Your task to perform on an android device: turn on priority inbox in the gmail app Image 0: 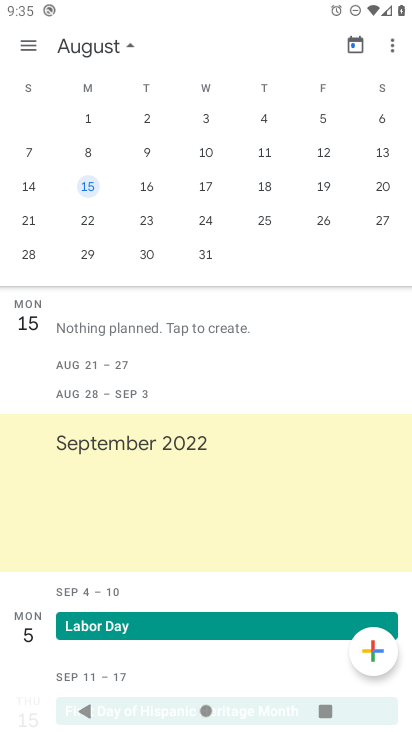
Step 0: press home button
Your task to perform on an android device: turn on priority inbox in the gmail app Image 1: 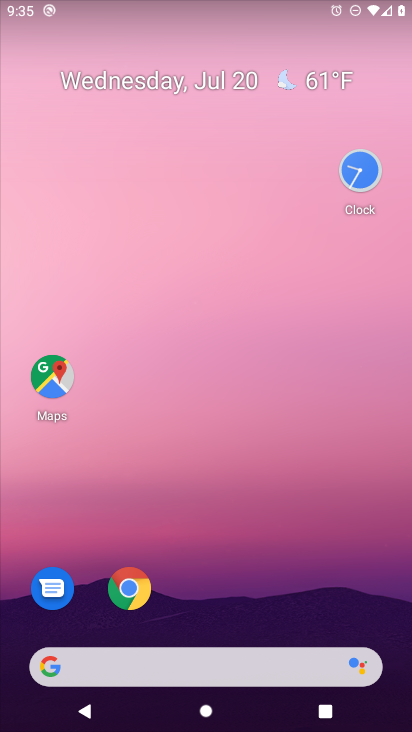
Step 1: drag from (34, 650) to (227, 198)
Your task to perform on an android device: turn on priority inbox in the gmail app Image 2: 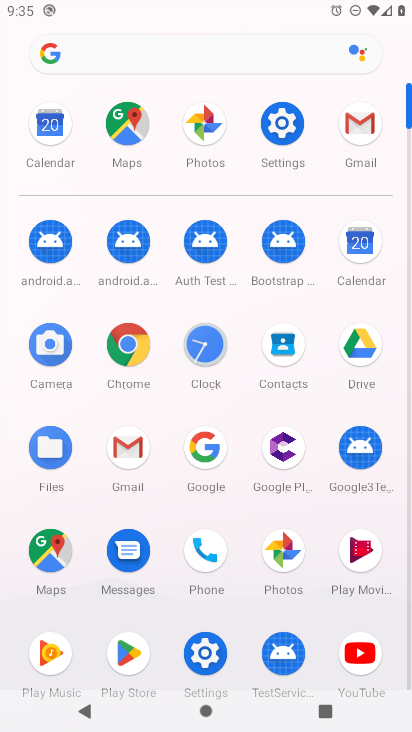
Step 2: click (139, 455)
Your task to perform on an android device: turn on priority inbox in the gmail app Image 3: 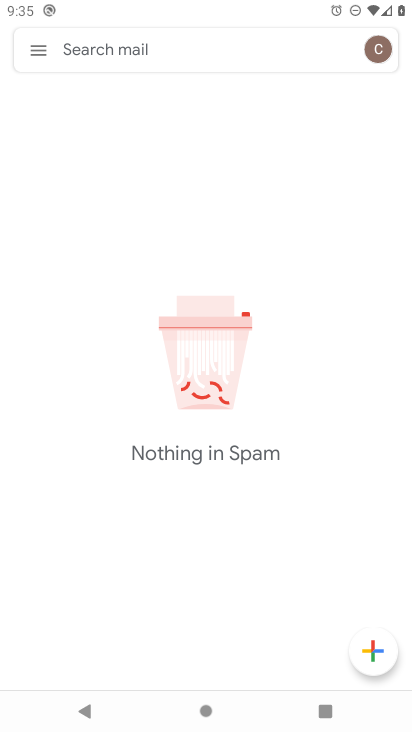
Step 3: click (45, 47)
Your task to perform on an android device: turn on priority inbox in the gmail app Image 4: 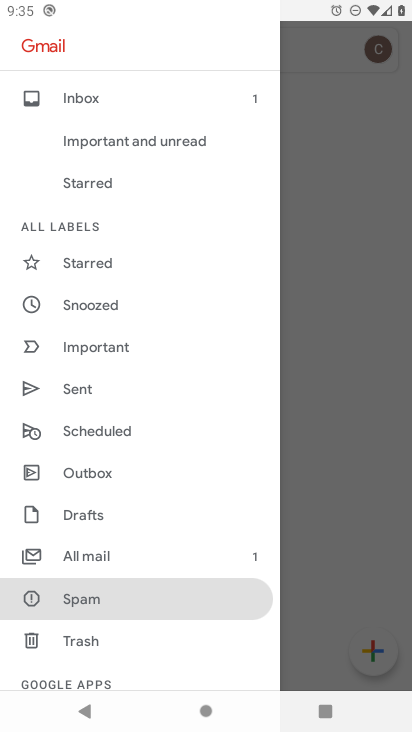
Step 4: drag from (129, 599) to (238, 131)
Your task to perform on an android device: turn on priority inbox in the gmail app Image 5: 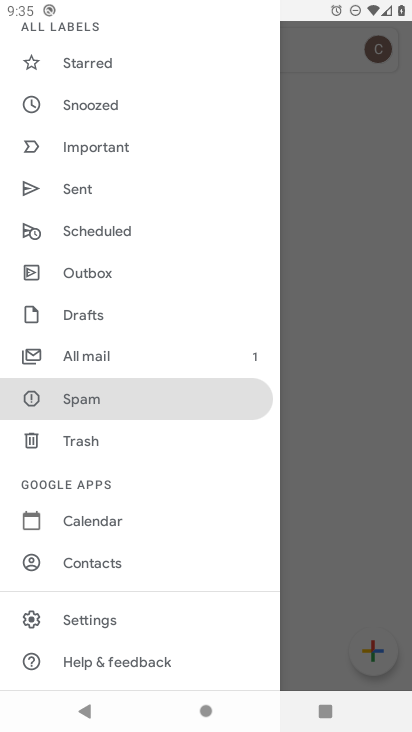
Step 5: click (102, 627)
Your task to perform on an android device: turn on priority inbox in the gmail app Image 6: 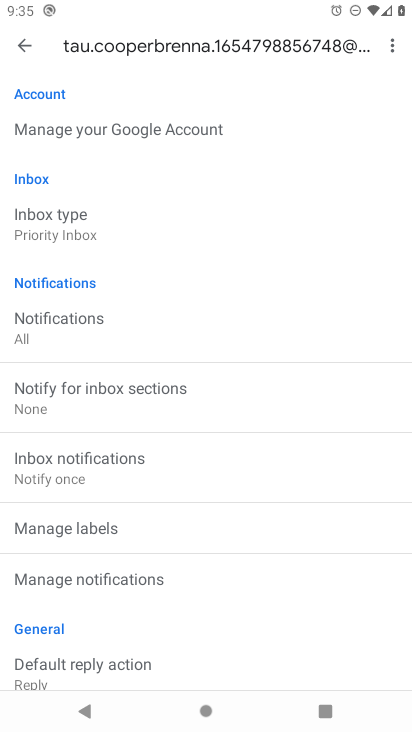
Step 6: task complete